Your task to perform on an android device: Open notification settings Image 0: 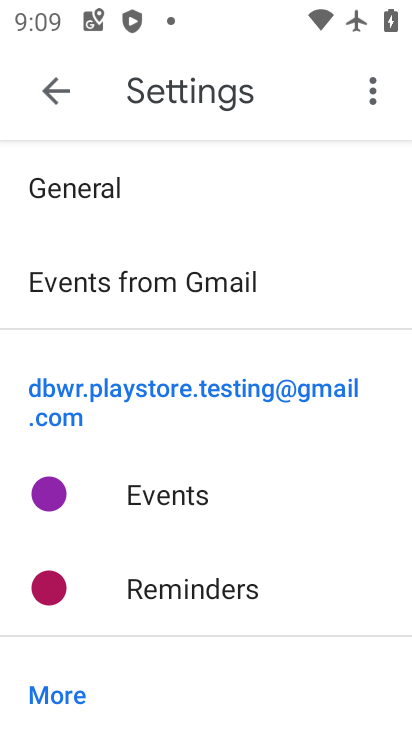
Step 0: press home button
Your task to perform on an android device: Open notification settings Image 1: 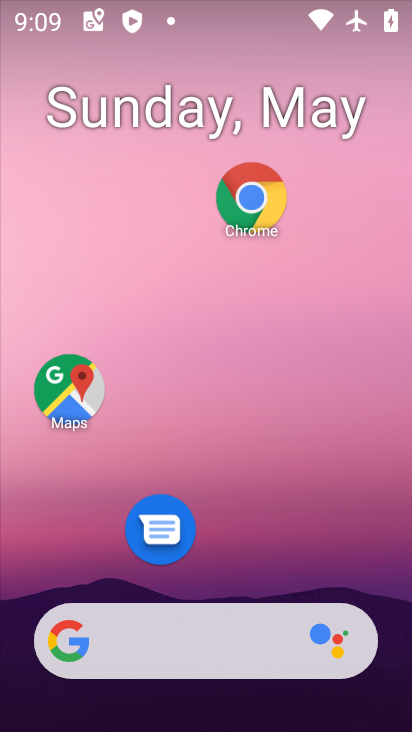
Step 1: drag from (233, 401) to (220, 69)
Your task to perform on an android device: Open notification settings Image 2: 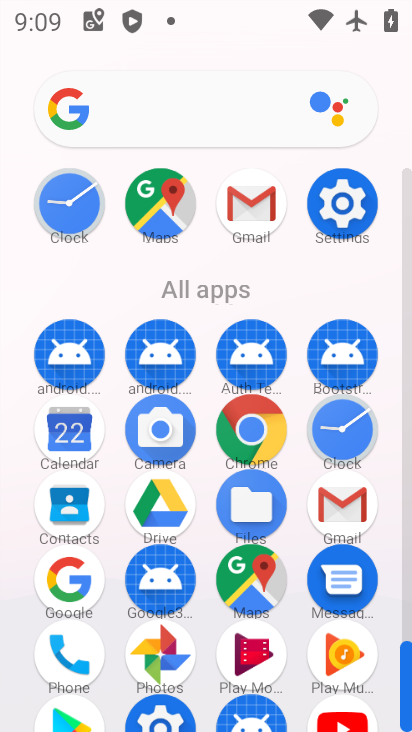
Step 2: click (340, 206)
Your task to perform on an android device: Open notification settings Image 3: 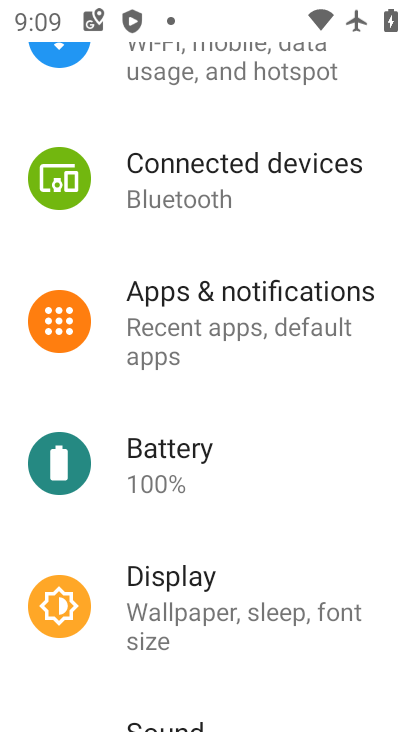
Step 3: click (168, 322)
Your task to perform on an android device: Open notification settings Image 4: 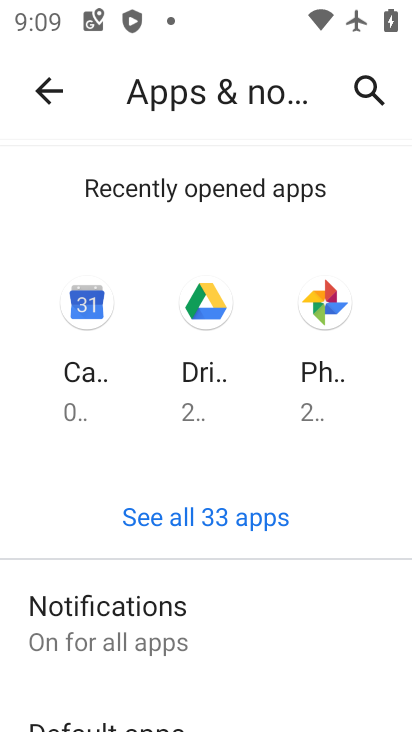
Step 4: click (172, 598)
Your task to perform on an android device: Open notification settings Image 5: 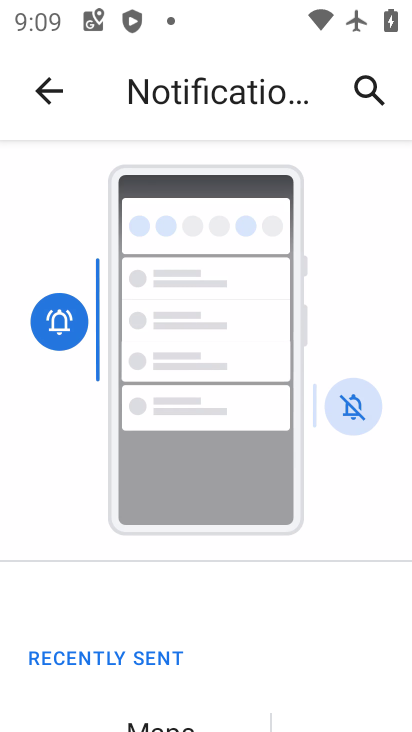
Step 5: task complete